Your task to perform on an android device: toggle improve location accuracy Image 0: 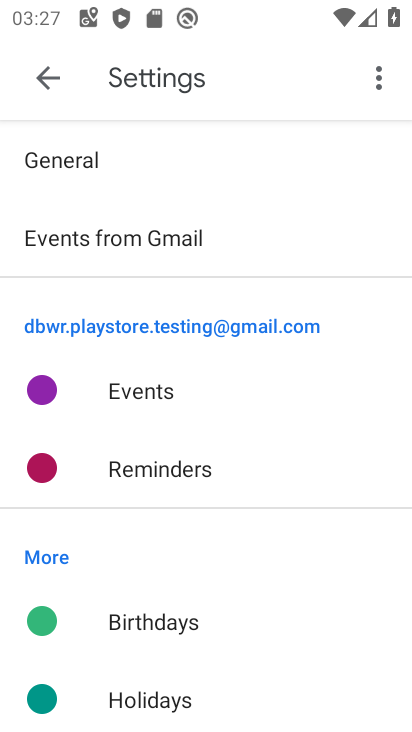
Step 0: press home button
Your task to perform on an android device: toggle improve location accuracy Image 1: 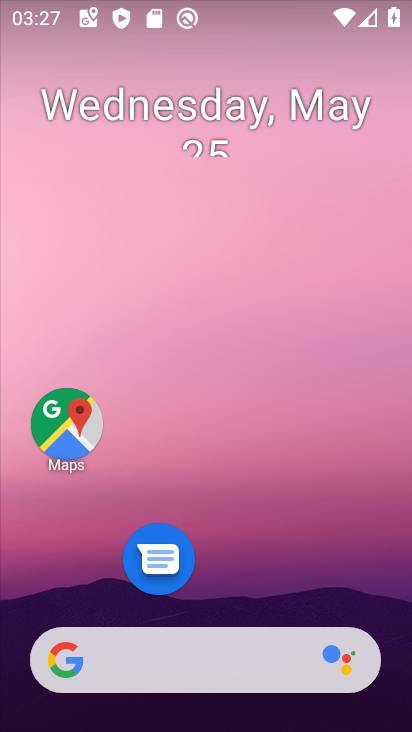
Step 1: drag from (233, 591) to (222, 43)
Your task to perform on an android device: toggle improve location accuracy Image 2: 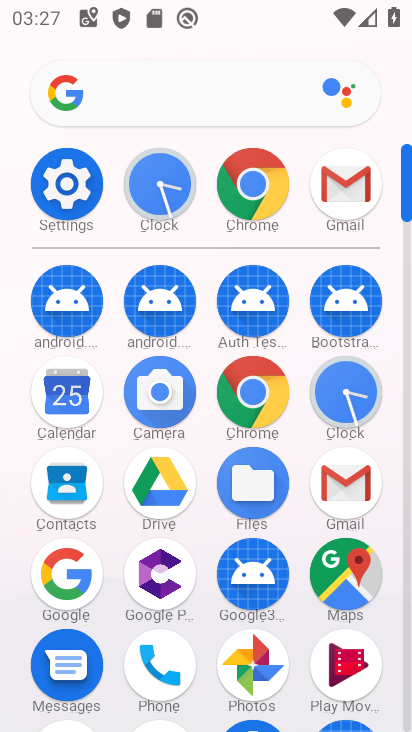
Step 2: click (66, 179)
Your task to perform on an android device: toggle improve location accuracy Image 3: 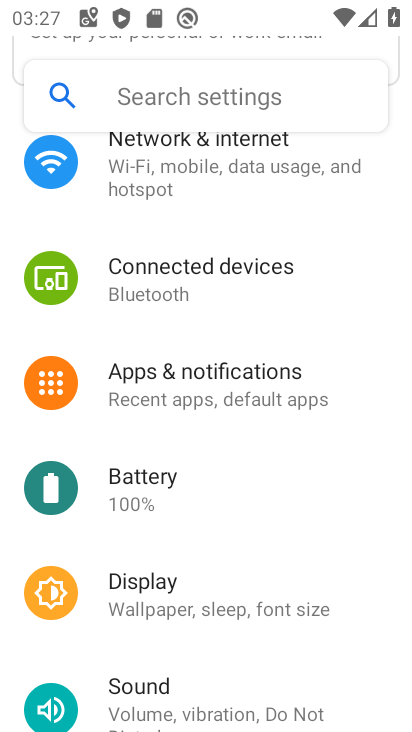
Step 3: drag from (200, 679) to (217, 198)
Your task to perform on an android device: toggle improve location accuracy Image 4: 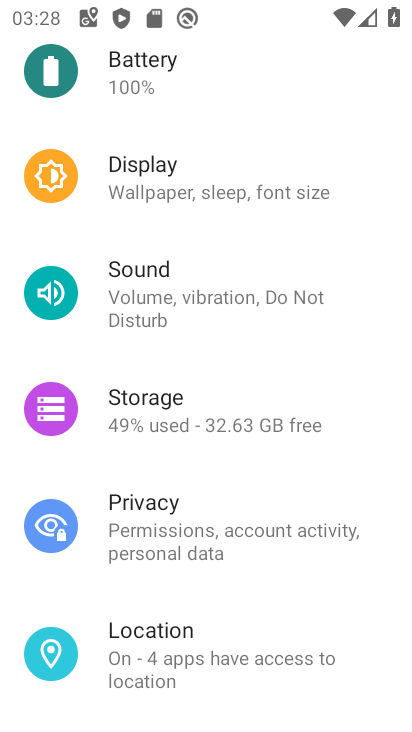
Step 4: click (217, 638)
Your task to perform on an android device: toggle improve location accuracy Image 5: 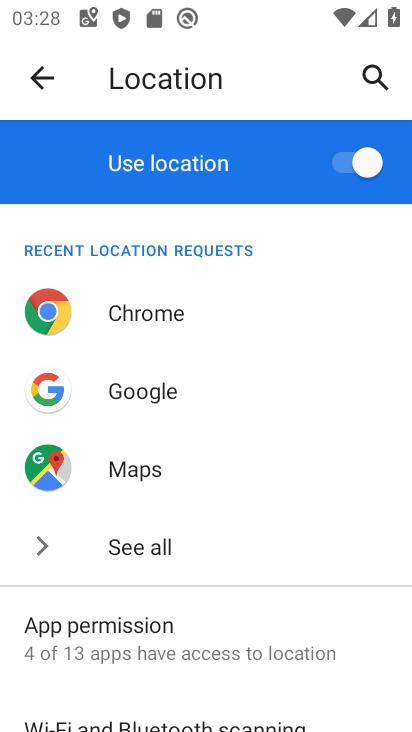
Step 5: drag from (229, 679) to (248, 238)
Your task to perform on an android device: toggle improve location accuracy Image 6: 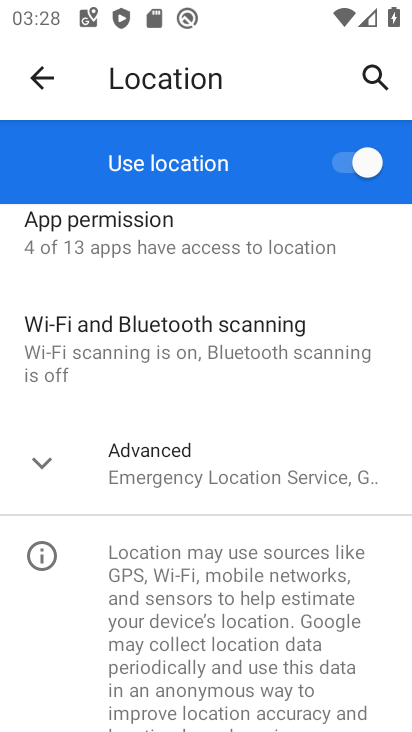
Step 6: click (41, 457)
Your task to perform on an android device: toggle improve location accuracy Image 7: 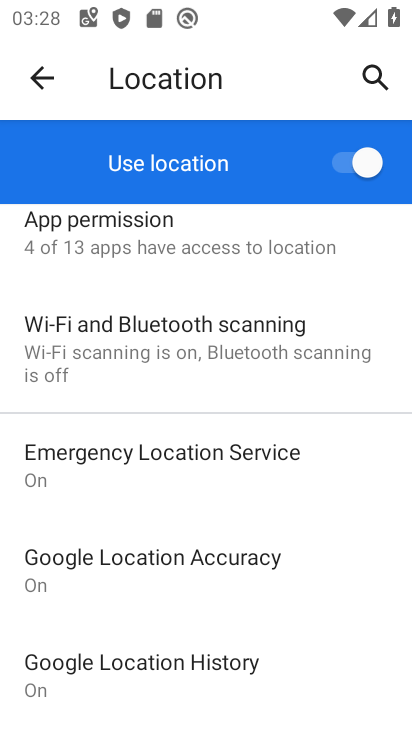
Step 7: click (95, 570)
Your task to perform on an android device: toggle improve location accuracy Image 8: 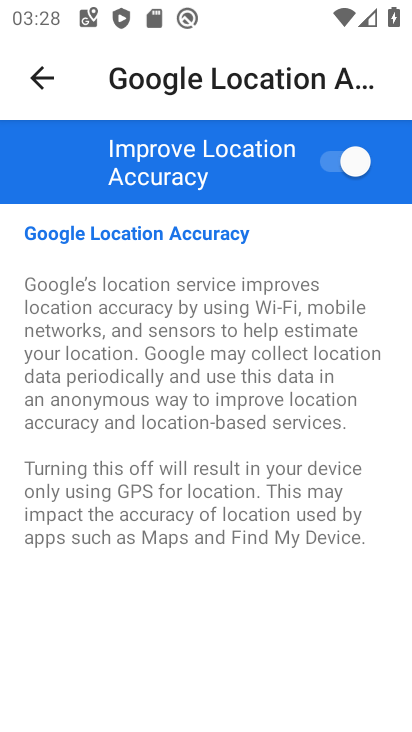
Step 8: task complete